Your task to perform on an android device: Open calendar and show me the second week of next month Image 0: 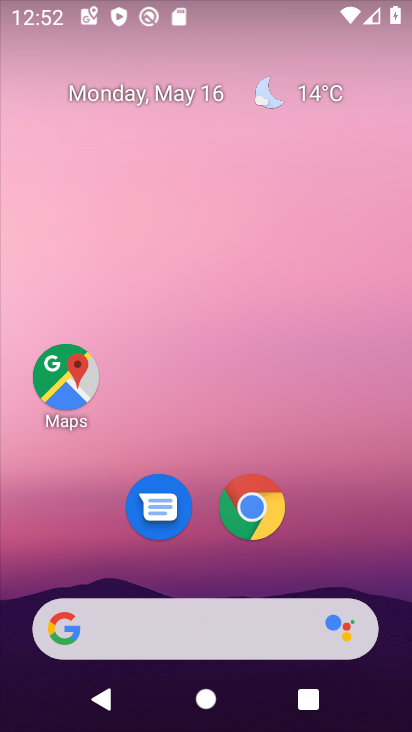
Step 0: press home button
Your task to perform on an android device: Open calendar and show me the second week of next month Image 1: 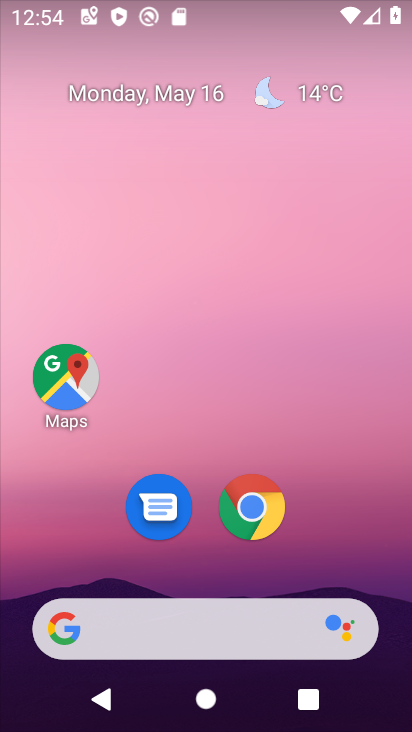
Step 1: drag from (19, 558) to (180, 164)
Your task to perform on an android device: Open calendar and show me the second week of next month Image 2: 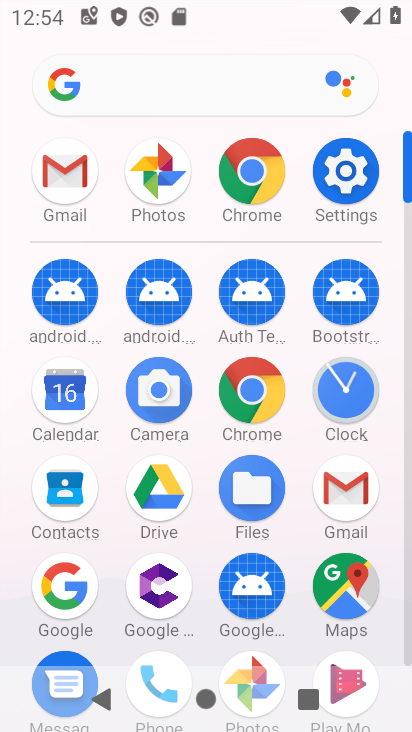
Step 2: click (63, 384)
Your task to perform on an android device: Open calendar and show me the second week of next month Image 3: 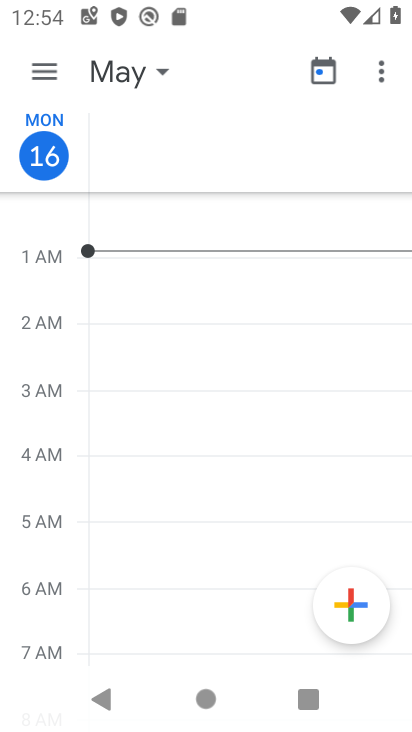
Step 3: click (94, 77)
Your task to perform on an android device: Open calendar and show me the second week of next month Image 4: 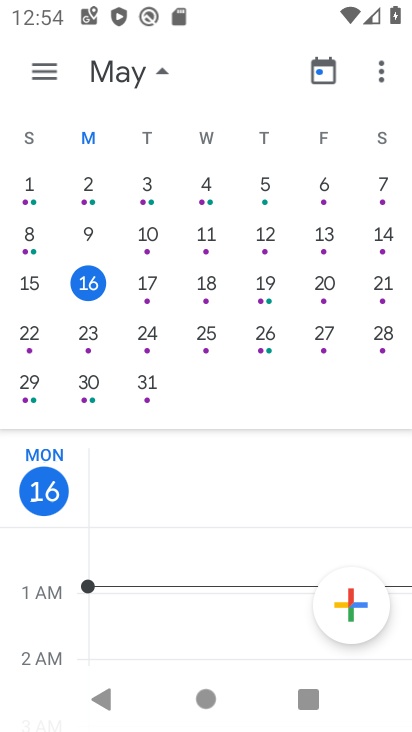
Step 4: drag from (403, 232) to (4, 249)
Your task to perform on an android device: Open calendar and show me the second week of next month Image 5: 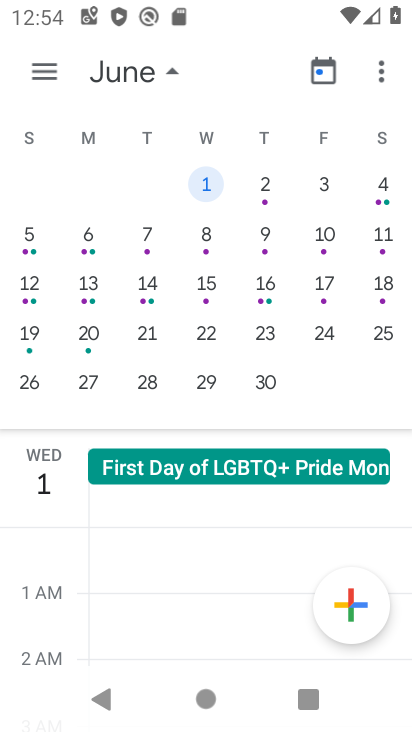
Step 5: click (194, 234)
Your task to perform on an android device: Open calendar and show me the second week of next month Image 6: 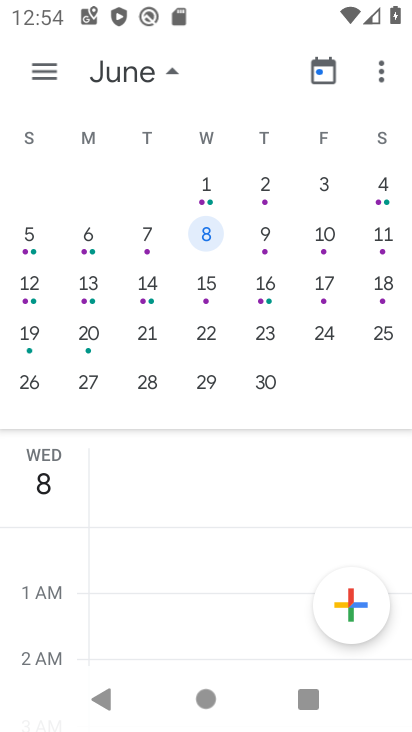
Step 6: click (136, 242)
Your task to perform on an android device: Open calendar and show me the second week of next month Image 7: 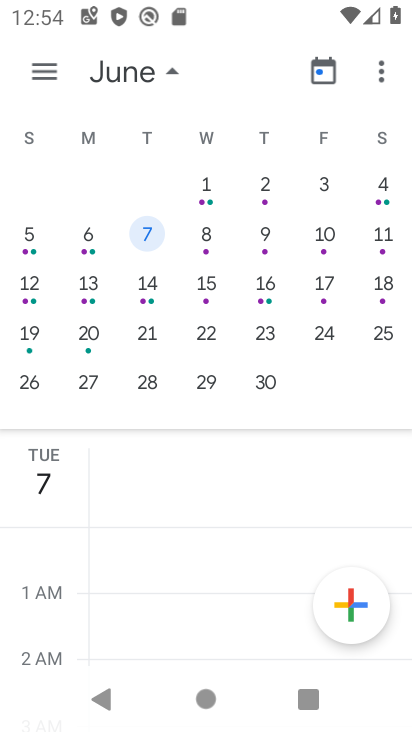
Step 7: click (91, 231)
Your task to perform on an android device: Open calendar and show me the second week of next month Image 8: 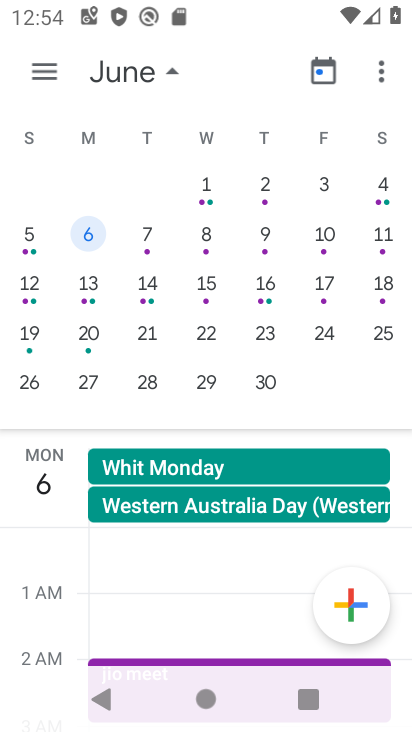
Step 8: task complete